Your task to perform on an android device: turn vacation reply on in the gmail app Image 0: 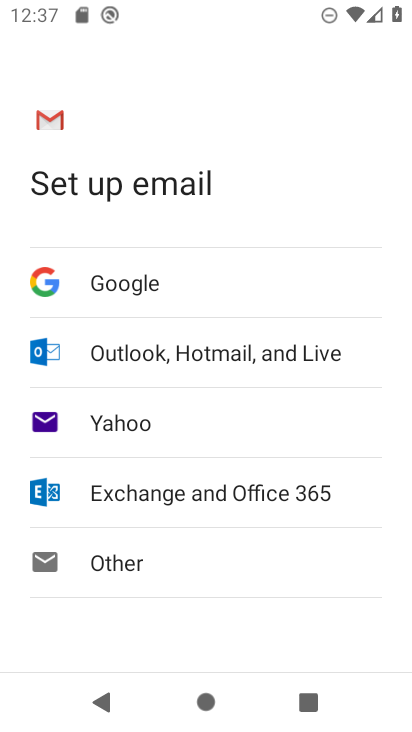
Step 0: press home button
Your task to perform on an android device: turn vacation reply on in the gmail app Image 1: 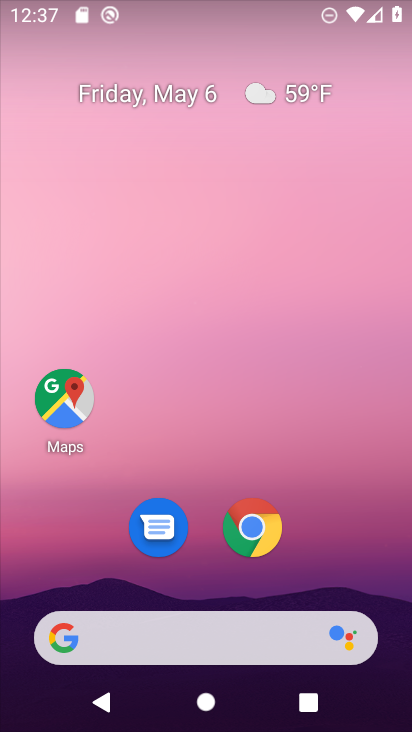
Step 1: drag from (199, 467) to (214, 35)
Your task to perform on an android device: turn vacation reply on in the gmail app Image 2: 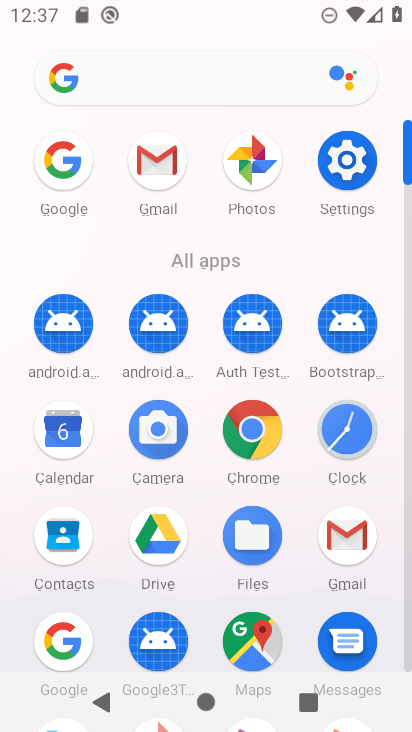
Step 2: click (157, 156)
Your task to perform on an android device: turn vacation reply on in the gmail app Image 3: 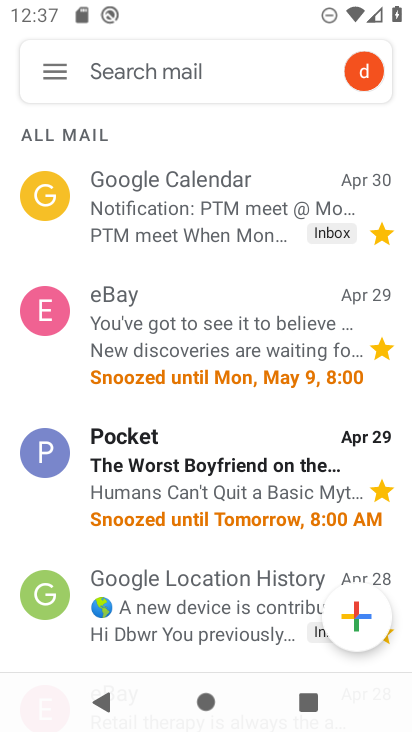
Step 3: click (48, 72)
Your task to perform on an android device: turn vacation reply on in the gmail app Image 4: 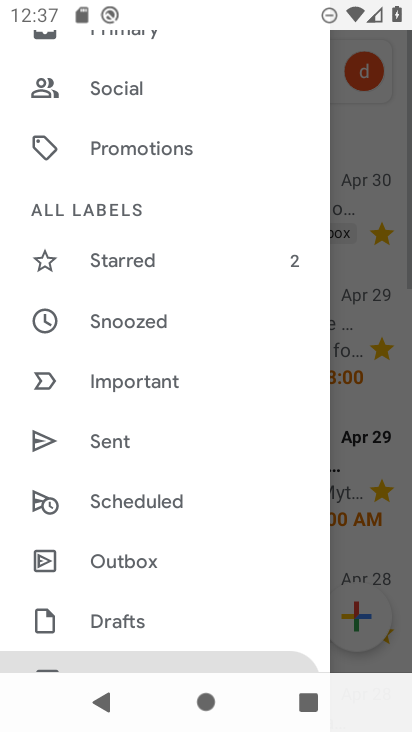
Step 4: drag from (146, 411) to (151, 322)
Your task to perform on an android device: turn vacation reply on in the gmail app Image 5: 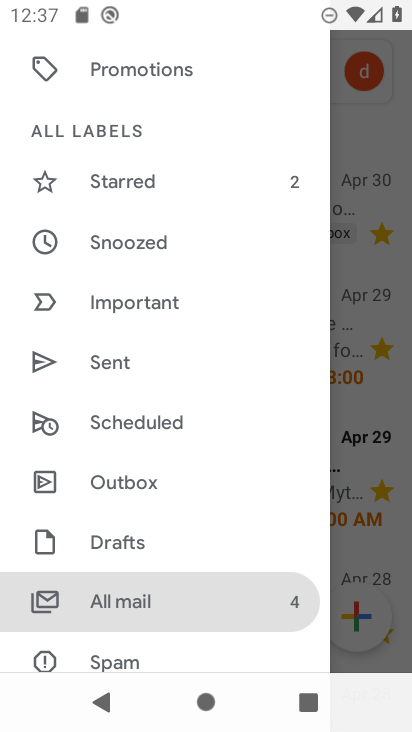
Step 5: drag from (152, 514) to (166, 364)
Your task to perform on an android device: turn vacation reply on in the gmail app Image 6: 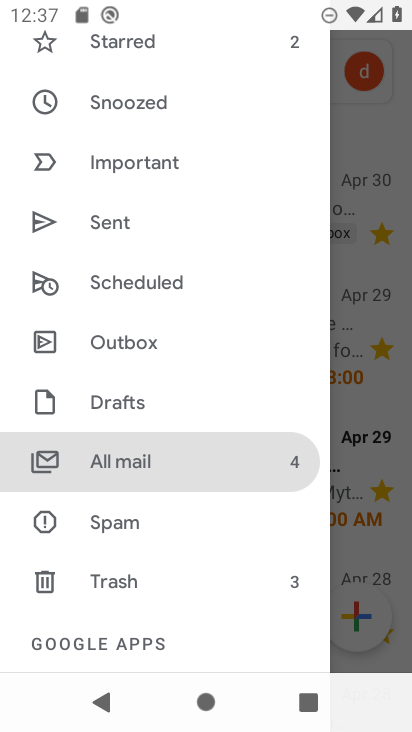
Step 6: drag from (153, 534) to (167, 361)
Your task to perform on an android device: turn vacation reply on in the gmail app Image 7: 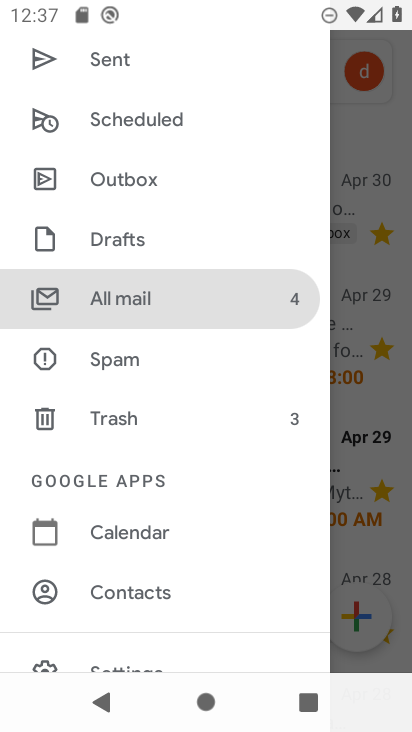
Step 7: drag from (140, 550) to (182, 419)
Your task to perform on an android device: turn vacation reply on in the gmail app Image 8: 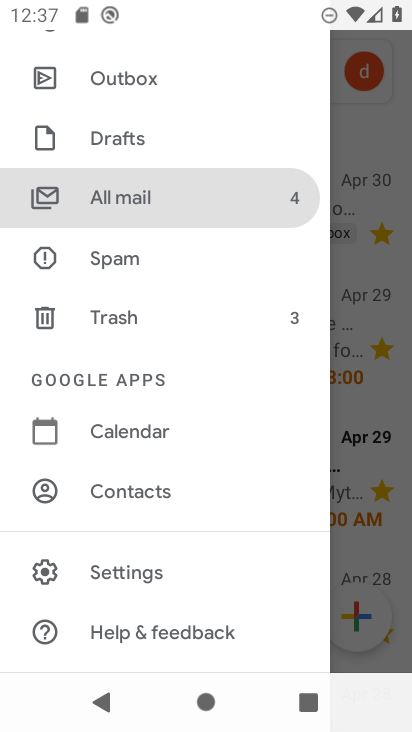
Step 8: click (118, 573)
Your task to perform on an android device: turn vacation reply on in the gmail app Image 9: 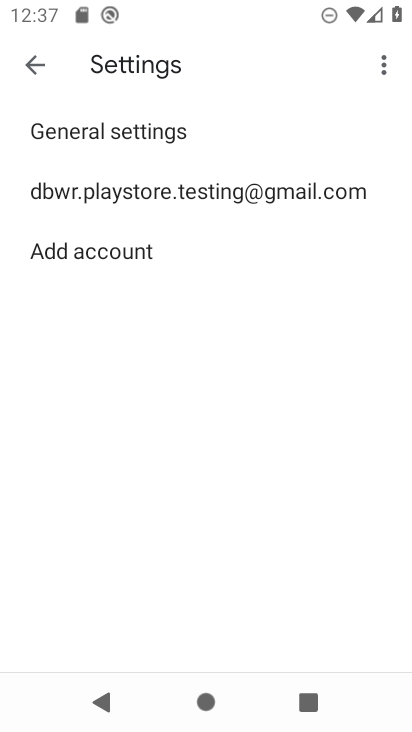
Step 9: click (190, 193)
Your task to perform on an android device: turn vacation reply on in the gmail app Image 10: 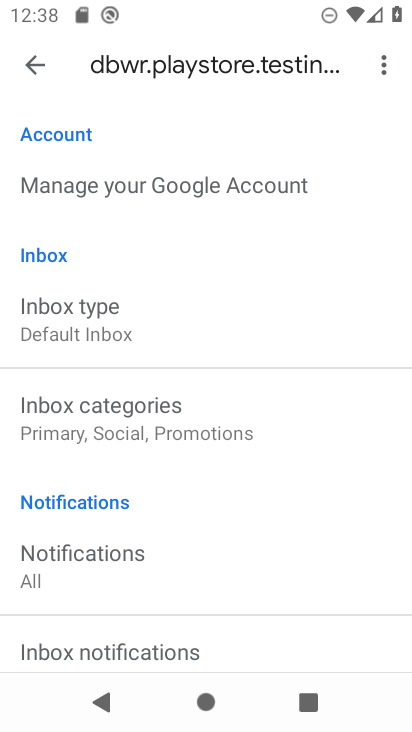
Step 10: drag from (164, 520) to (176, 346)
Your task to perform on an android device: turn vacation reply on in the gmail app Image 11: 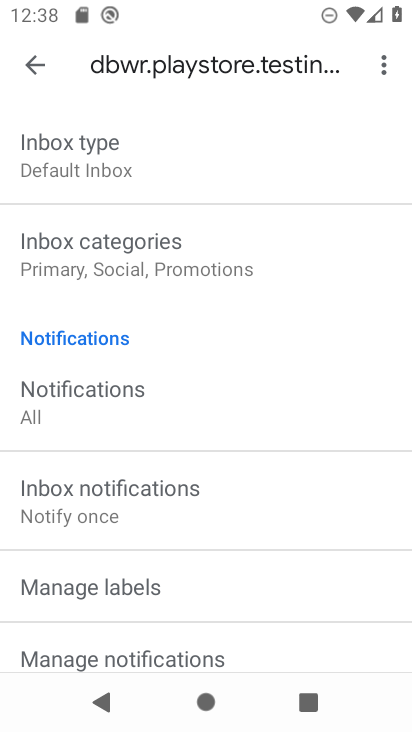
Step 11: drag from (167, 431) to (252, 304)
Your task to perform on an android device: turn vacation reply on in the gmail app Image 12: 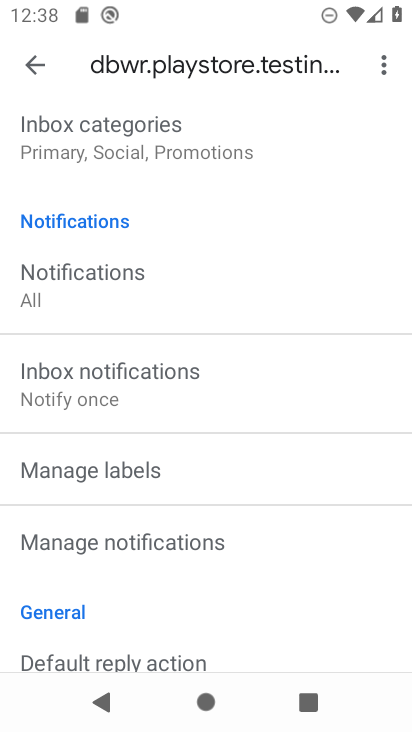
Step 12: drag from (185, 477) to (256, 334)
Your task to perform on an android device: turn vacation reply on in the gmail app Image 13: 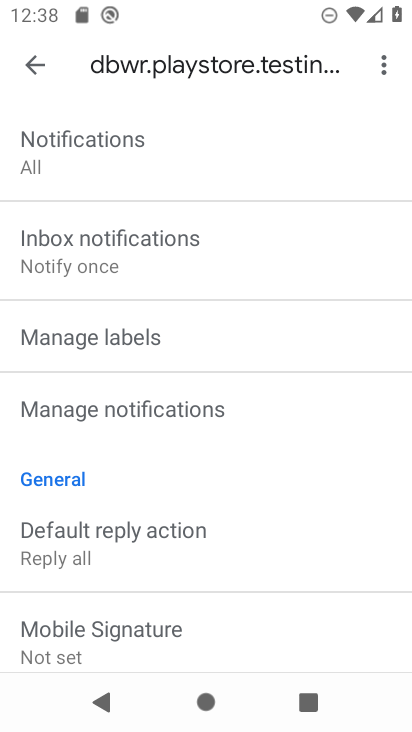
Step 13: drag from (200, 475) to (241, 336)
Your task to perform on an android device: turn vacation reply on in the gmail app Image 14: 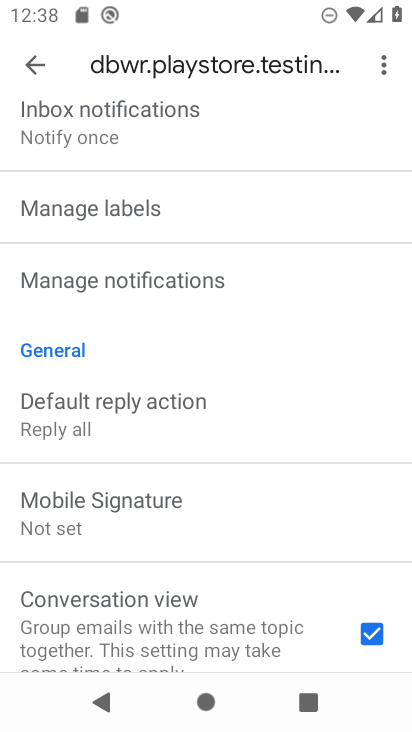
Step 14: drag from (192, 540) to (257, 414)
Your task to perform on an android device: turn vacation reply on in the gmail app Image 15: 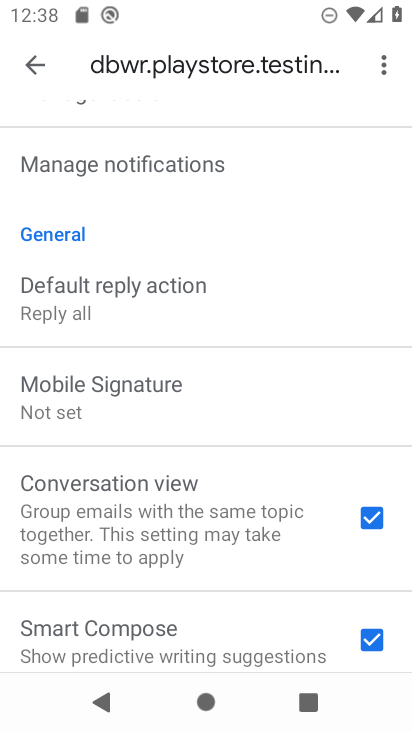
Step 15: drag from (217, 610) to (318, 408)
Your task to perform on an android device: turn vacation reply on in the gmail app Image 16: 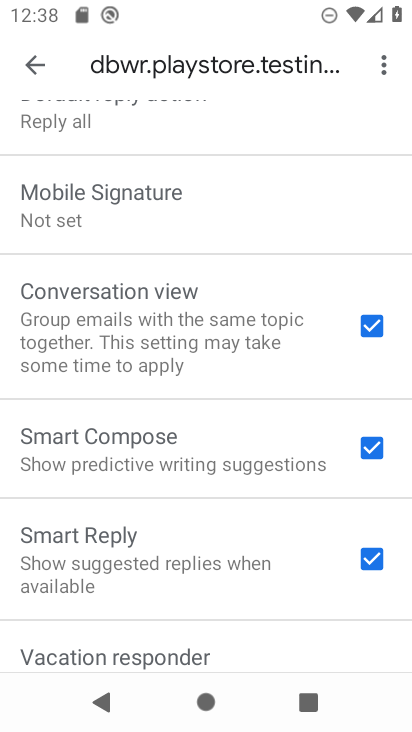
Step 16: drag from (219, 596) to (265, 500)
Your task to perform on an android device: turn vacation reply on in the gmail app Image 17: 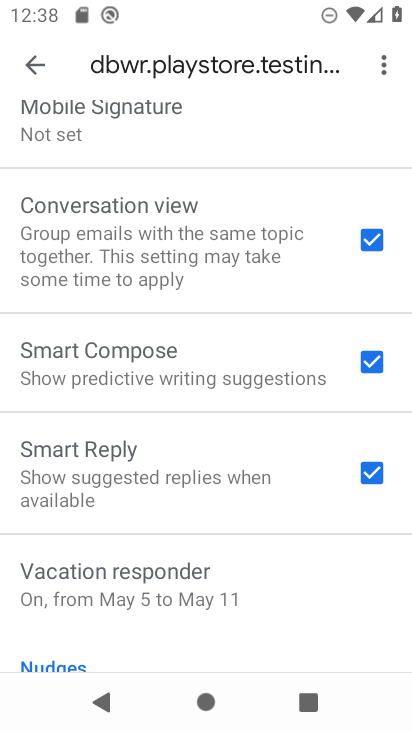
Step 17: click (174, 592)
Your task to perform on an android device: turn vacation reply on in the gmail app Image 18: 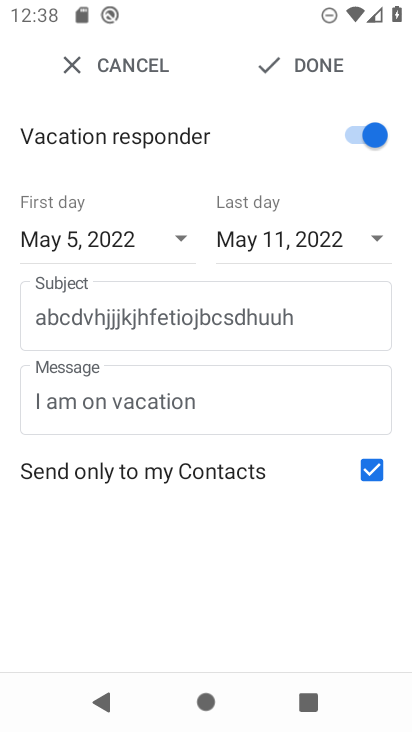
Step 18: task complete